Your task to perform on an android device: set the timer Image 0: 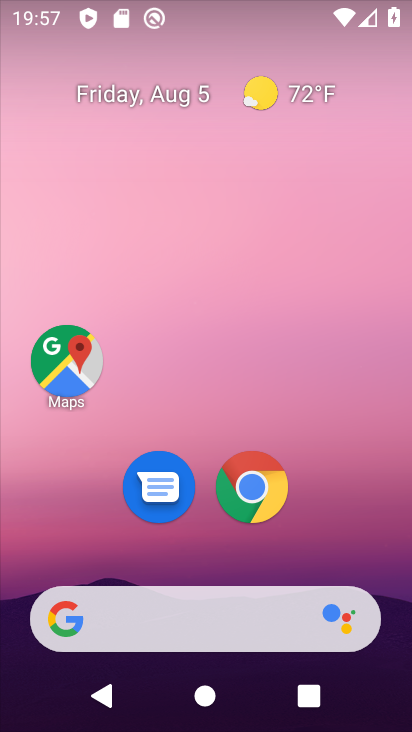
Step 0: press home button
Your task to perform on an android device: set the timer Image 1: 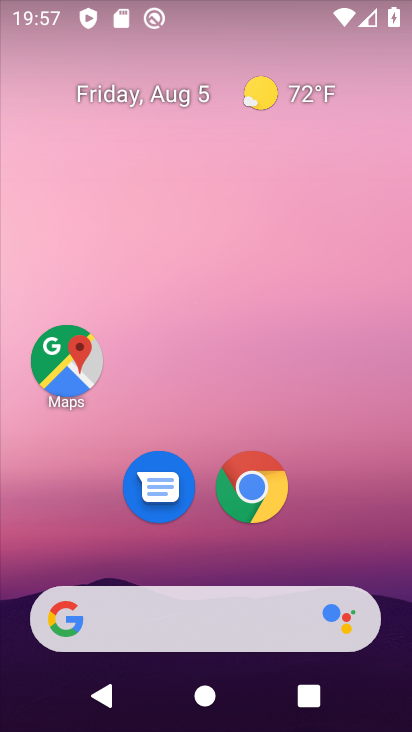
Step 1: drag from (158, 622) to (275, 47)
Your task to perform on an android device: set the timer Image 2: 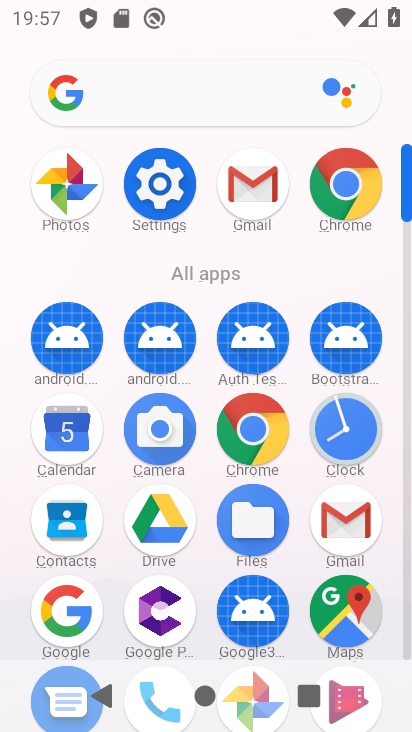
Step 2: click (351, 441)
Your task to perform on an android device: set the timer Image 3: 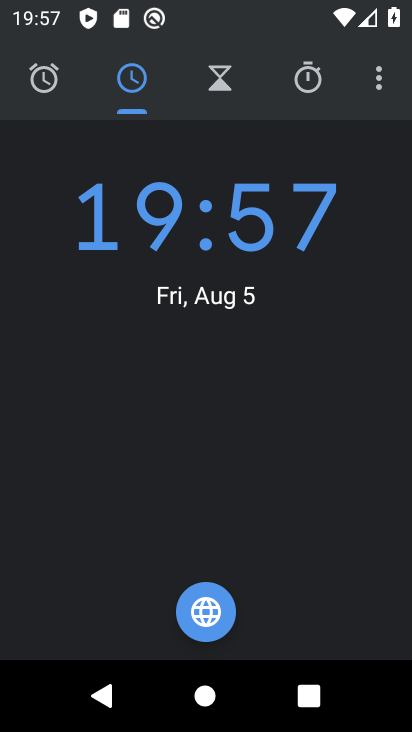
Step 3: click (215, 87)
Your task to perform on an android device: set the timer Image 4: 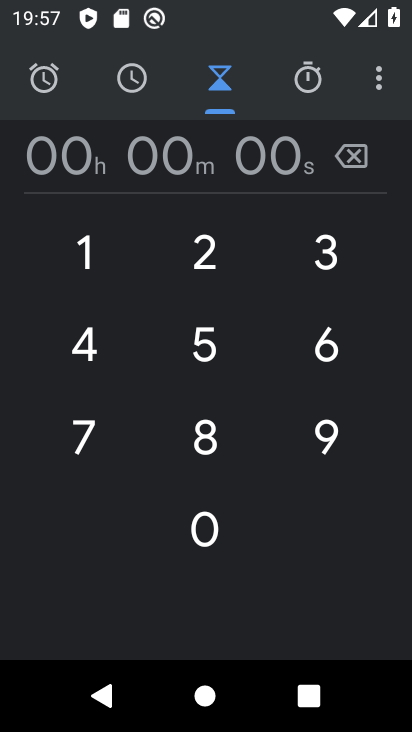
Step 4: click (213, 442)
Your task to perform on an android device: set the timer Image 5: 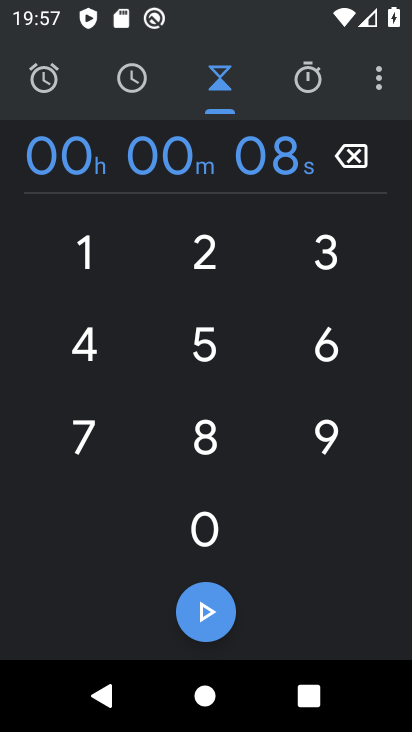
Step 5: click (327, 338)
Your task to perform on an android device: set the timer Image 6: 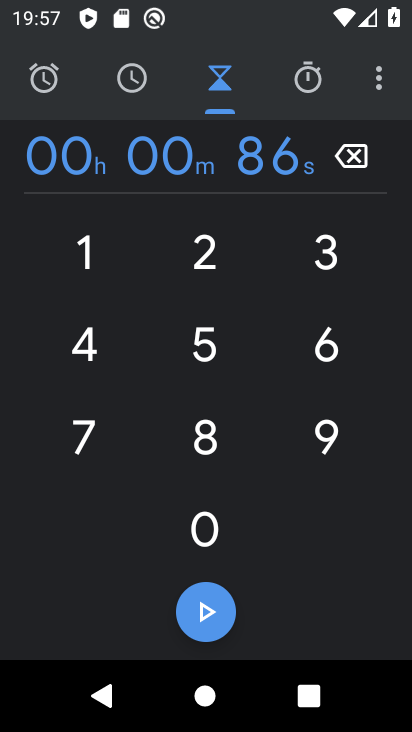
Step 6: click (210, 610)
Your task to perform on an android device: set the timer Image 7: 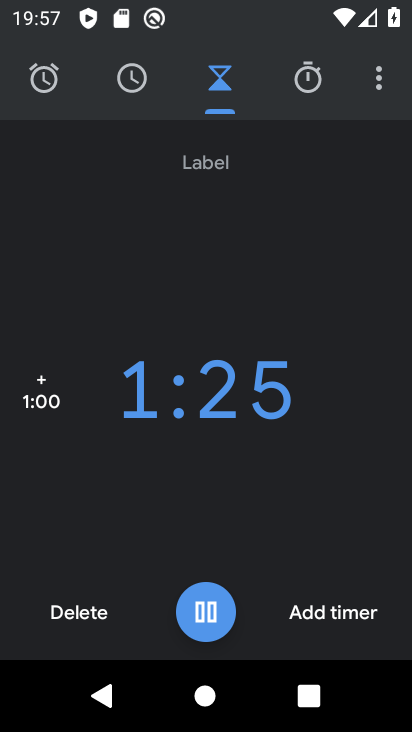
Step 7: click (210, 609)
Your task to perform on an android device: set the timer Image 8: 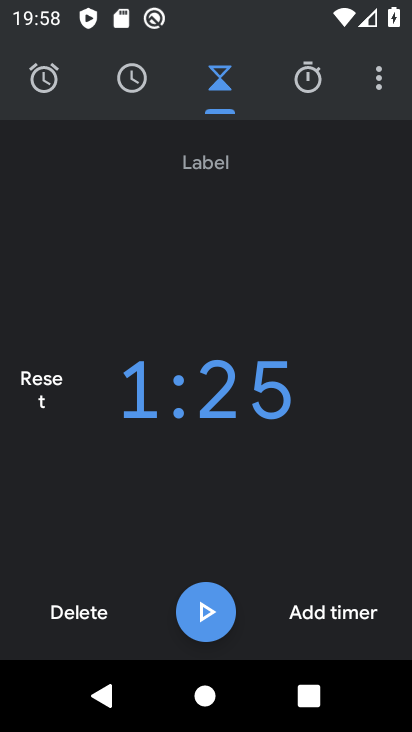
Step 8: task complete